Your task to perform on an android device: turn off sleep mode Image 0: 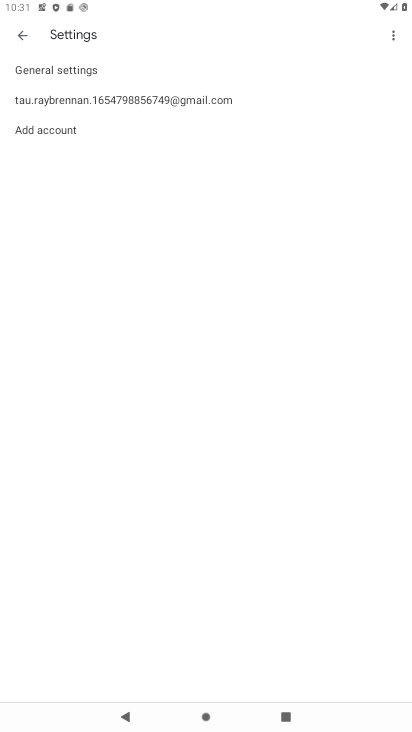
Step 0: press home button
Your task to perform on an android device: turn off sleep mode Image 1: 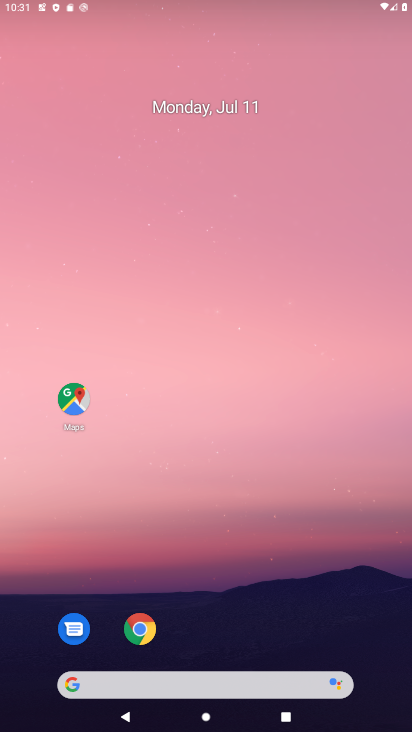
Step 1: drag from (202, 615) to (224, 192)
Your task to perform on an android device: turn off sleep mode Image 2: 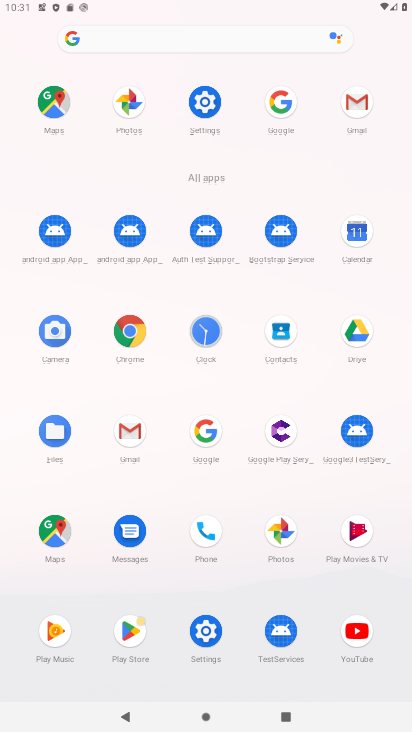
Step 2: click (203, 108)
Your task to perform on an android device: turn off sleep mode Image 3: 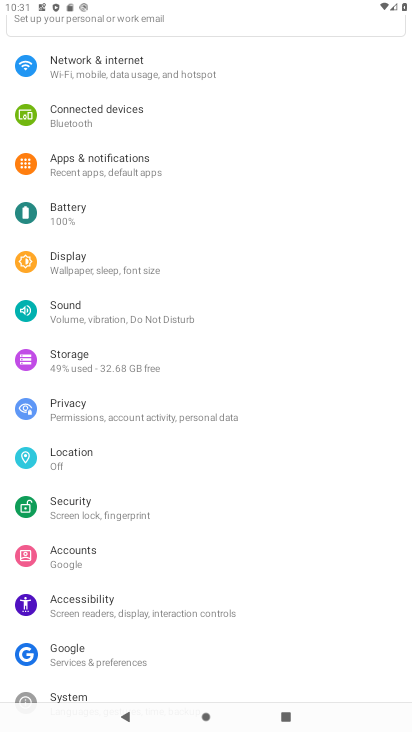
Step 3: click (130, 252)
Your task to perform on an android device: turn off sleep mode Image 4: 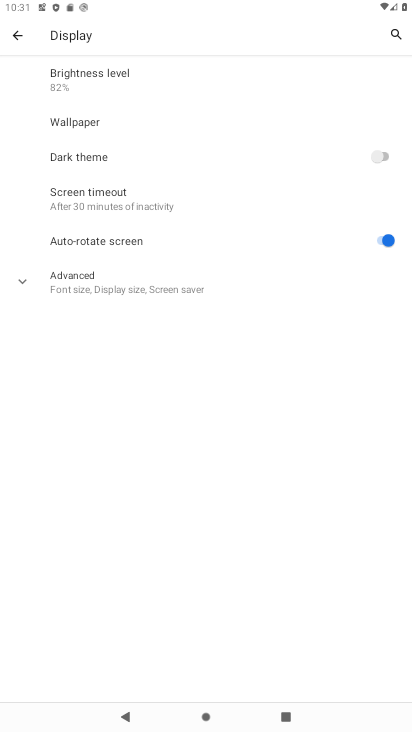
Step 4: click (137, 207)
Your task to perform on an android device: turn off sleep mode Image 5: 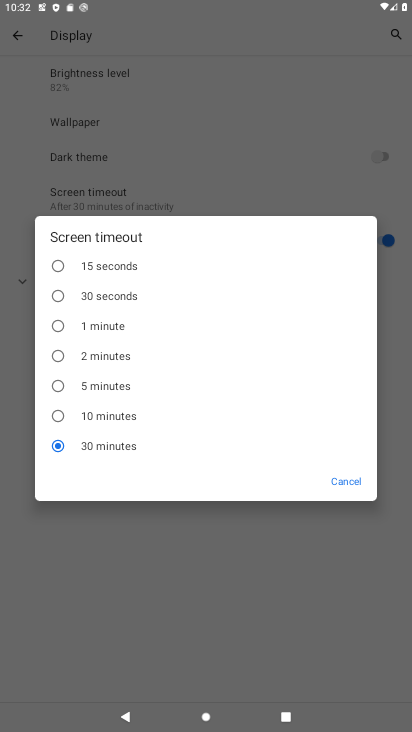
Step 5: click (117, 337)
Your task to perform on an android device: turn off sleep mode Image 6: 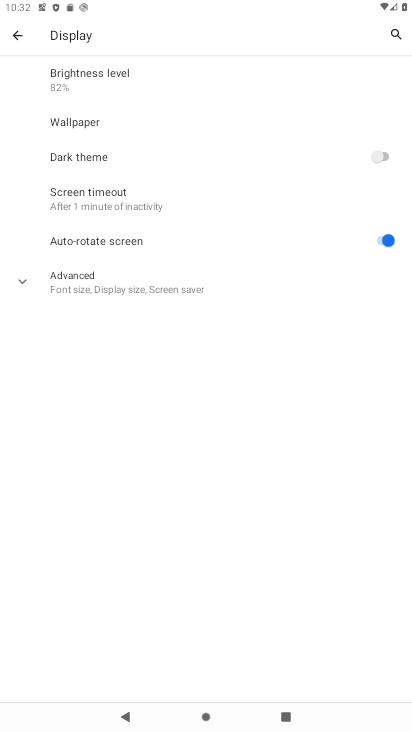
Step 6: task complete